Your task to perform on an android device: search for starred emails in the gmail app Image 0: 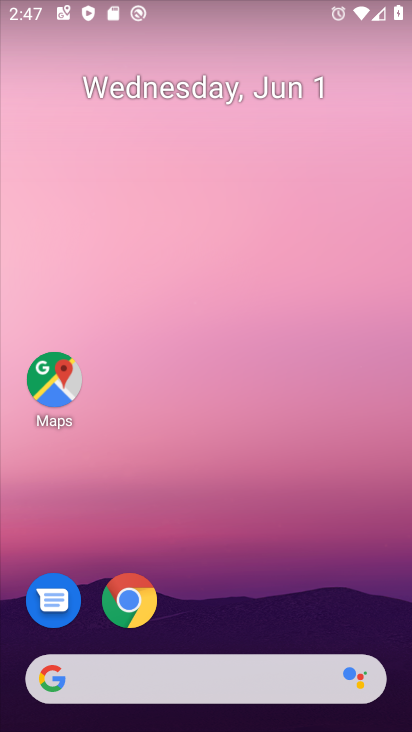
Step 0: drag from (228, 559) to (142, 13)
Your task to perform on an android device: search for starred emails in the gmail app Image 1: 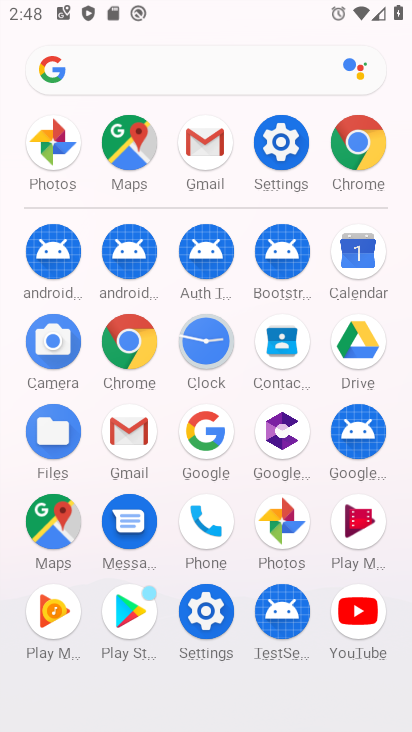
Step 1: drag from (18, 535) to (13, 221)
Your task to perform on an android device: search for starred emails in the gmail app Image 2: 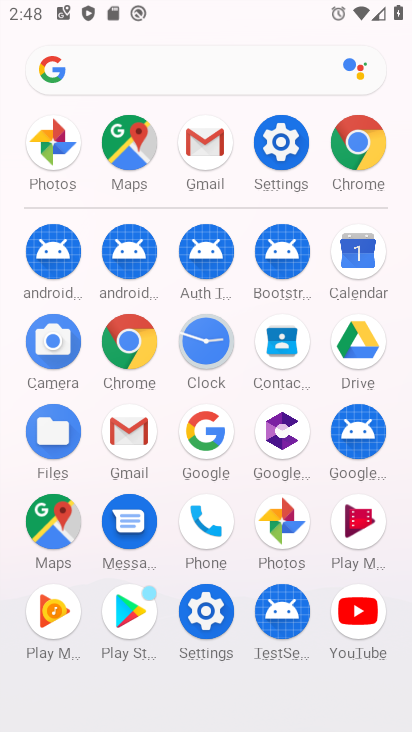
Step 2: click (125, 425)
Your task to perform on an android device: search for starred emails in the gmail app Image 3: 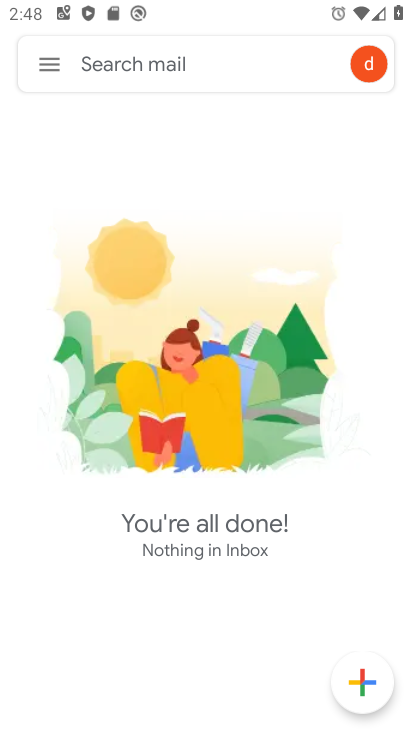
Step 3: click (54, 65)
Your task to perform on an android device: search for starred emails in the gmail app Image 4: 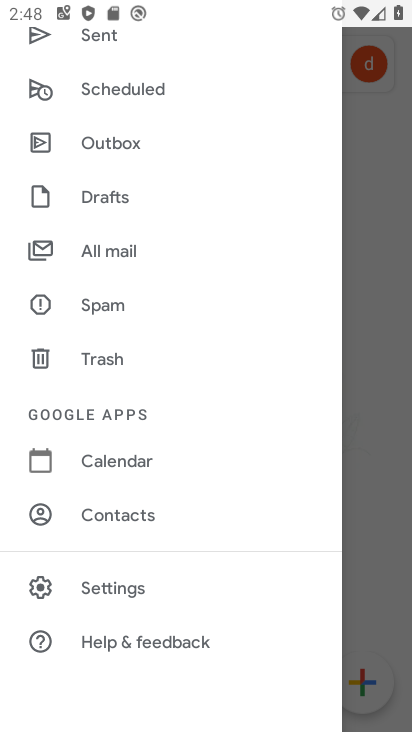
Step 4: drag from (194, 197) to (203, 544)
Your task to perform on an android device: search for starred emails in the gmail app Image 5: 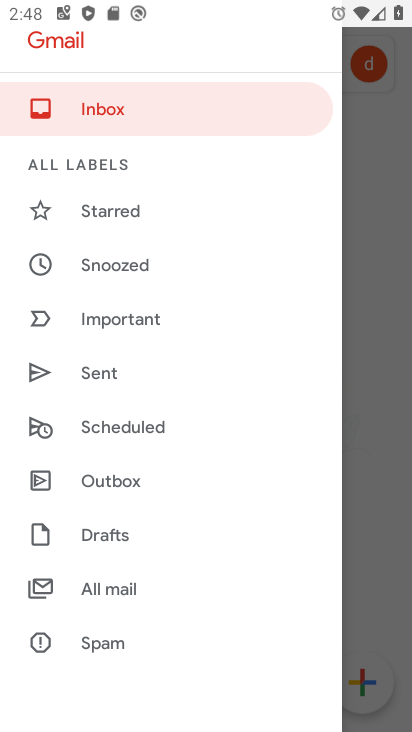
Step 5: click (148, 208)
Your task to perform on an android device: search for starred emails in the gmail app Image 6: 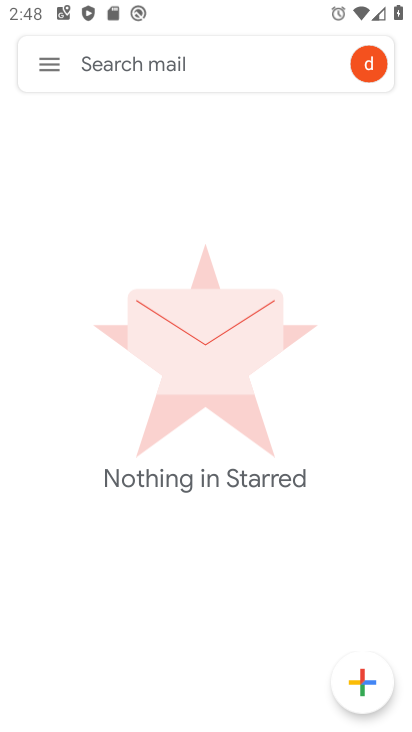
Step 6: task complete